Your task to perform on an android device: Open Google Maps Image 0: 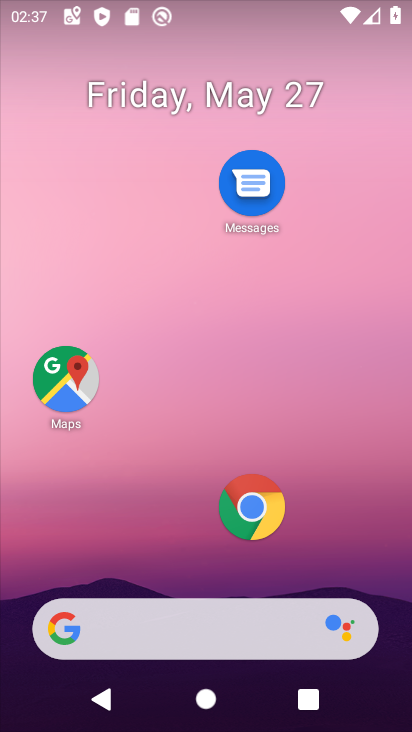
Step 0: drag from (223, 586) to (162, 5)
Your task to perform on an android device: Open Google Maps Image 1: 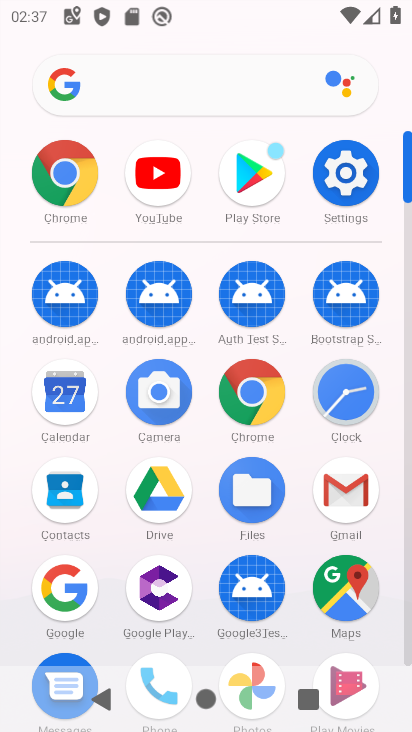
Step 1: click (332, 590)
Your task to perform on an android device: Open Google Maps Image 2: 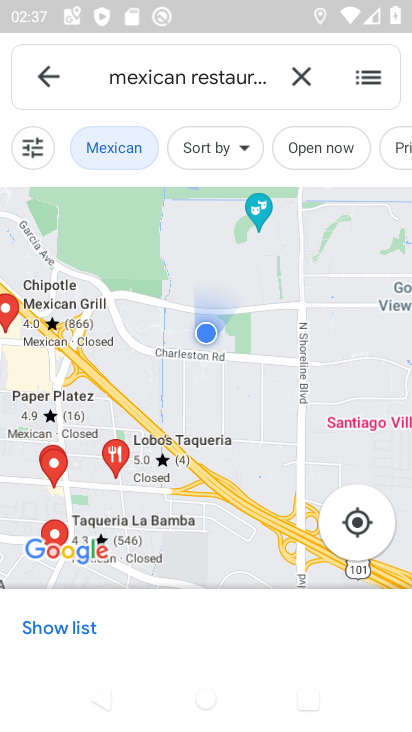
Step 2: task complete